Your task to perform on an android device: Go to Reddit.com Image 0: 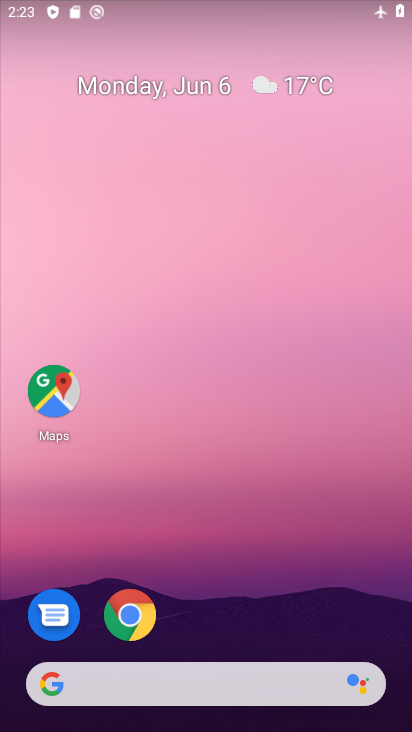
Step 0: click (150, 612)
Your task to perform on an android device: Go to Reddit.com Image 1: 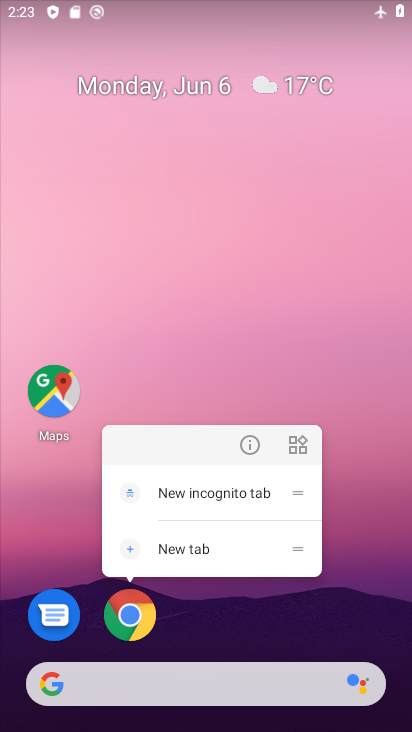
Step 1: click (129, 611)
Your task to perform on an android device: Go to Reddit.com Image 2: 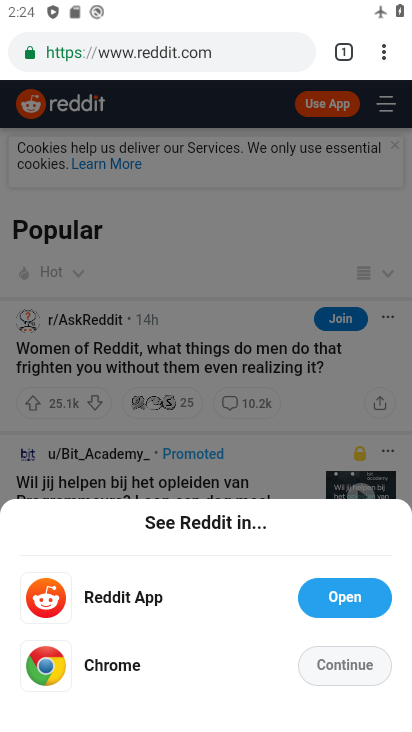
Step 2: task complete